Your task to perform on an android device: create a new album in the google photos Image 0: 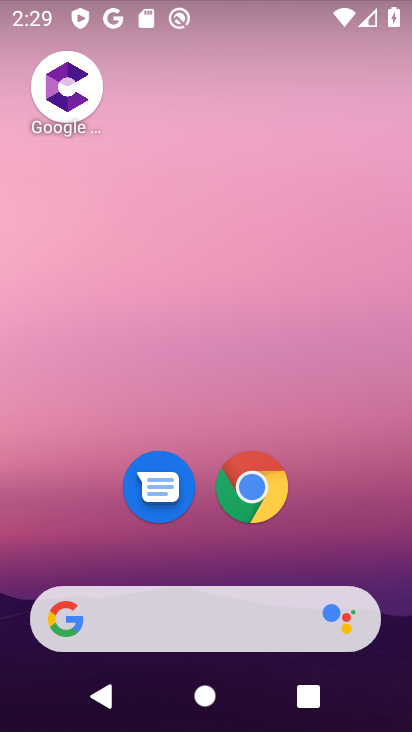
Step 0: drag from (125, 490) to (220, 0)
Your task to perform on an android device: create a new album in the google photos Image 1: 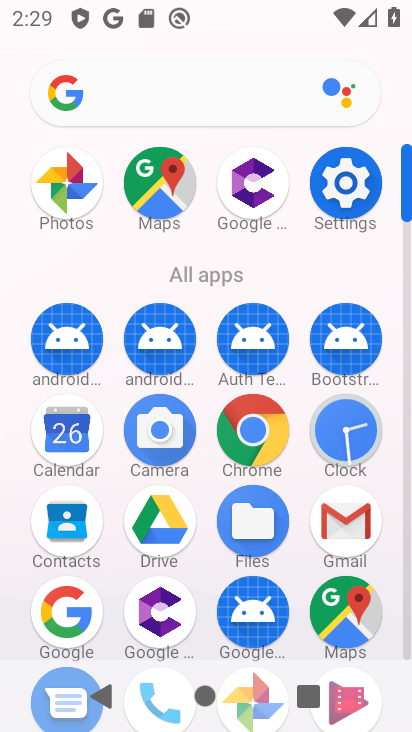
Step 1: drag from (178, 587) to (226, 208)
Your task to perform on an android device: create a new album in the google photos Image 2: 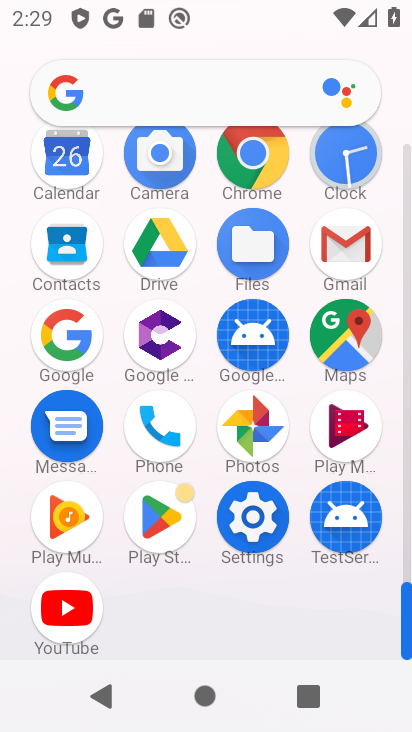
Step 2: click (263, 429)
Your task to perform on an android device: create a new album in the google photos Image 3: 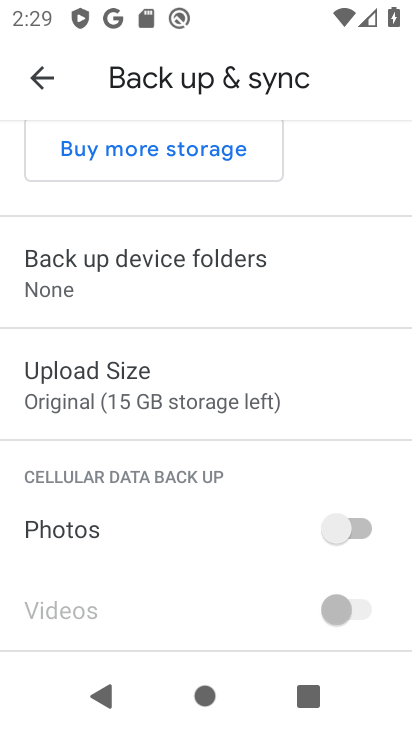
Step 3: click (30, 73)
Your task to perform on an android device: create a new album in the google photos Image 4: 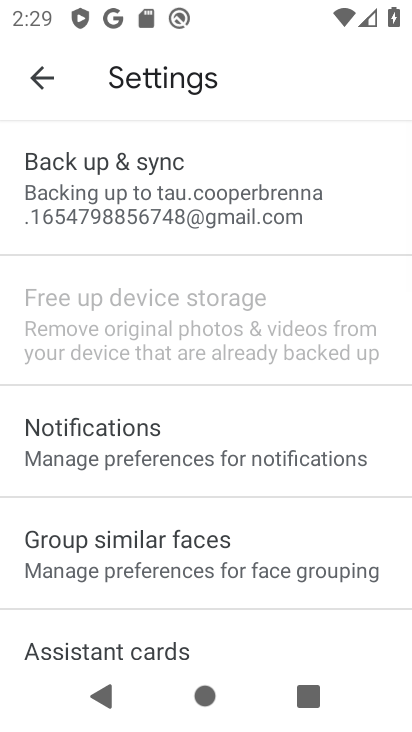
Step 4: click (45, 81)
Your task to perform on an android device: create a new album in the google photos Image 5: 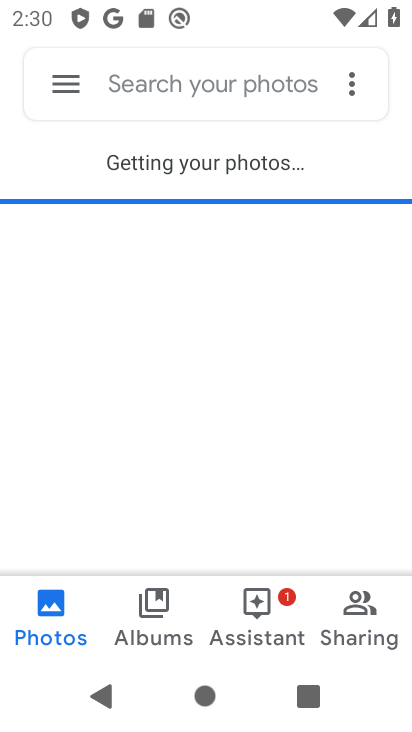
Step 5: click (143, 616)
Your task to perform on an android device: create a new album in the google photos Image 6: 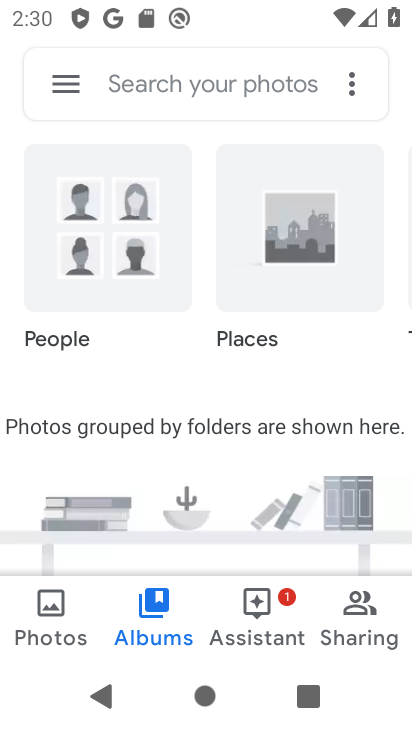
Step 6: drag from (180, 491) to (314, 88)
Your task to perform on an android device: create a new album in the google photos Image 7: 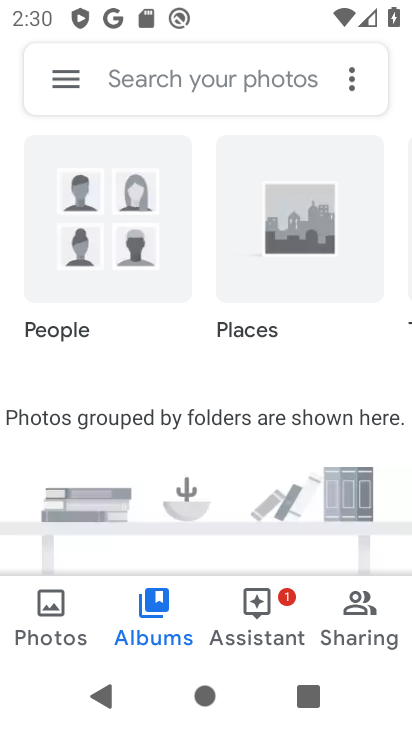
Step 7: drag from (255, 203) to (191, 598)
Your task to perform on an android device: create a new album in the google photos Image 8: 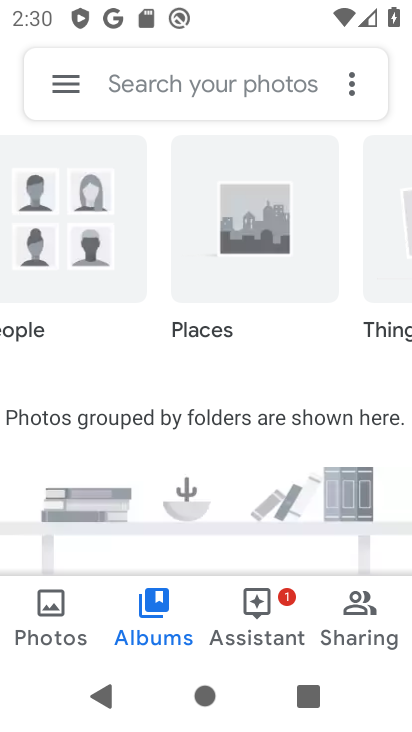
Step 8: click (356, 78)
Your task to perform on an android device: create a new album in the google photos Image 9: 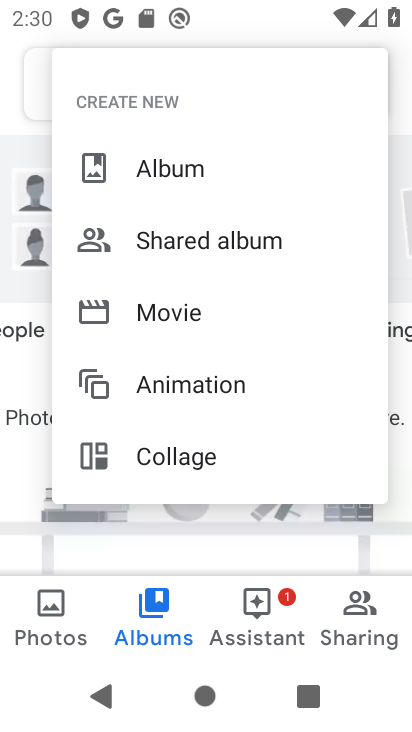
Step 9: click (178, 165)
Your task to perform on an android device: create a new album in the google photos Image 10: 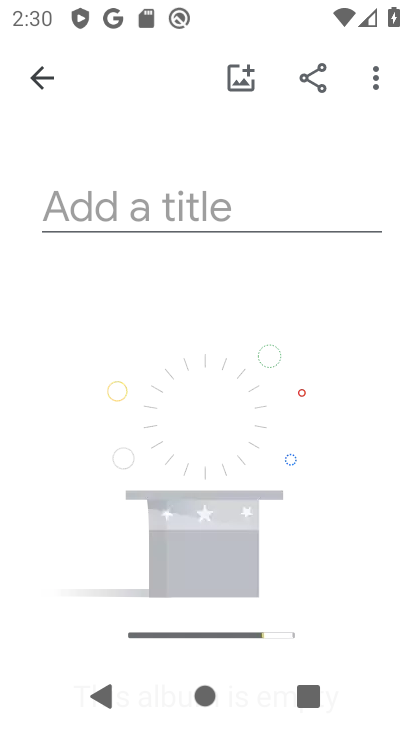
Step 10: click (167, 215)
Your task to perform on an android device: create a new album in the google photos Image 11: 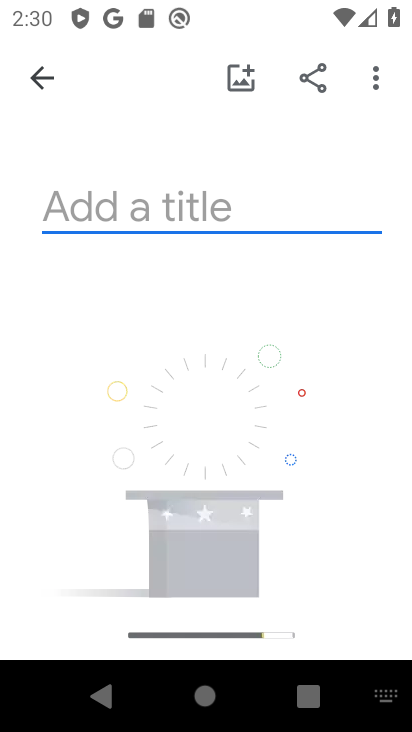
Step 11: type "hfhf"
Your task to perform on an android device: create a new album in the google photos Image 12: 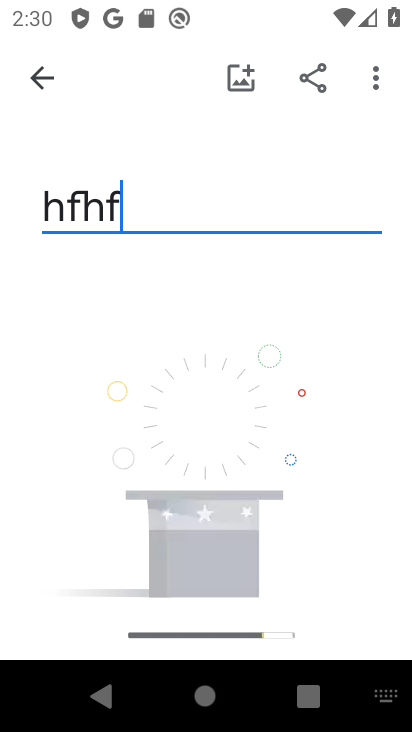
Step 12: drag from (205, 521) to (334, 24)
Your task to perform on an android device: create a new album in the google photos Image 13: 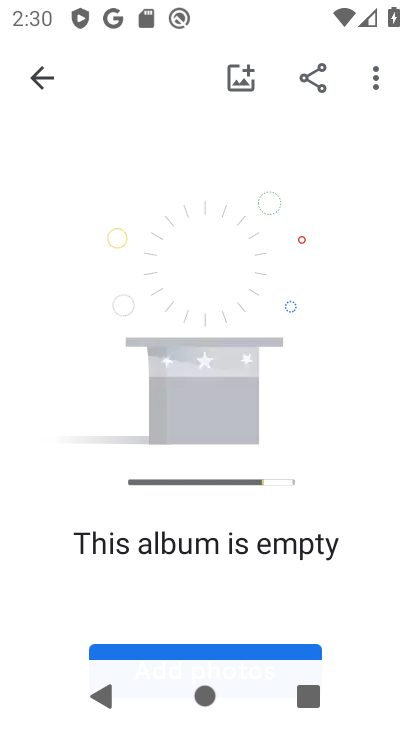
Step 13: click (171, 655)
Your task to perform on an android device: create a new album in the google photos Image 14: 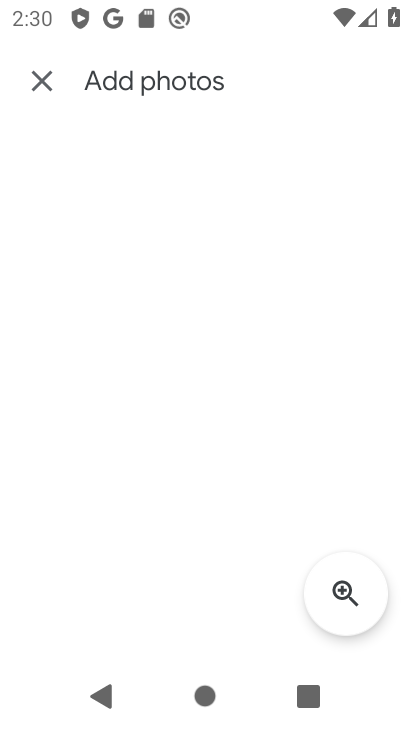
Step 14: task complete